Your task to perform on an android device: Set the phone to "Do not disturb". Image 0: 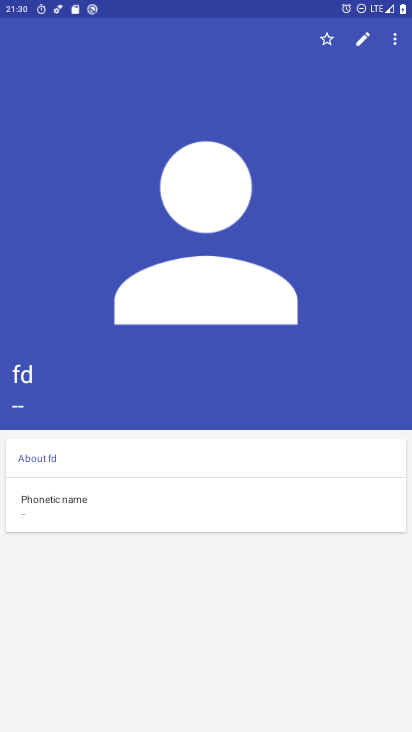
Step 0: drag from (187, 616) to (215, 59)
Your task to perform on an android device: Set the phone to "Do not disturb". Image 1: 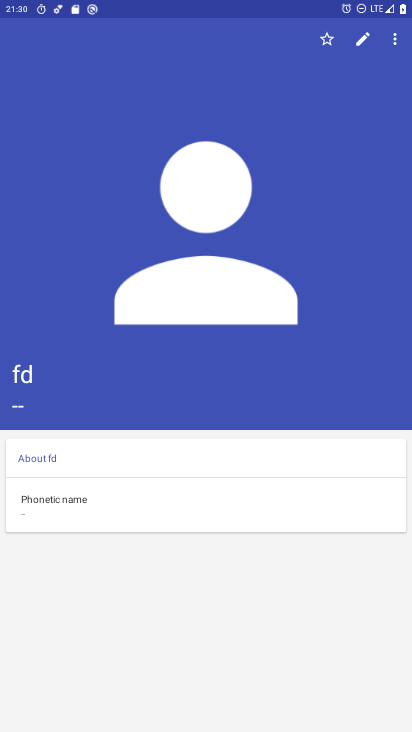
Step 1: drag from (225, 623) to (274, 278)
Your task to perform on an android device: Set the phone to "Do not disturb". Image 2: 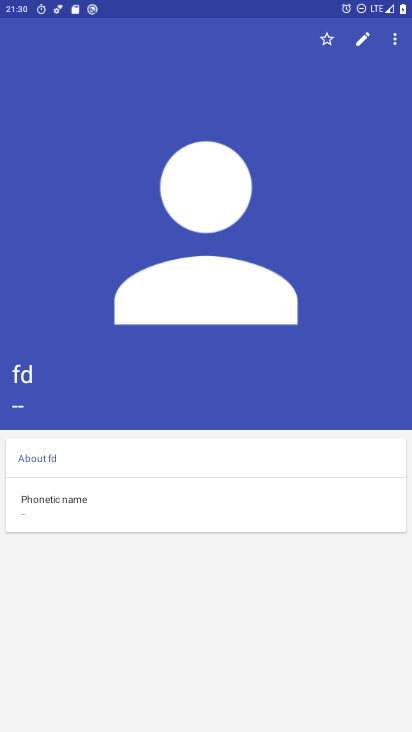
Step 2: press home button
Your task to perform on an android device: Set the phone to "Do not disturb". Image 3: 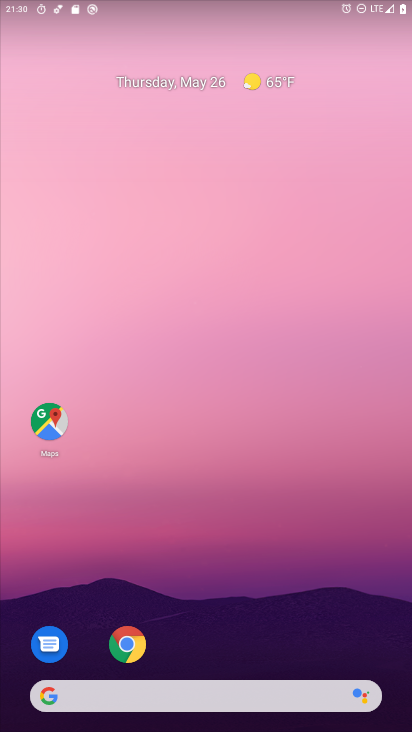
Step 3: drag from (193, 662) to (228, 293)
Your task to perform on an android device: Set the phone to "Do not disturb". Image 4: 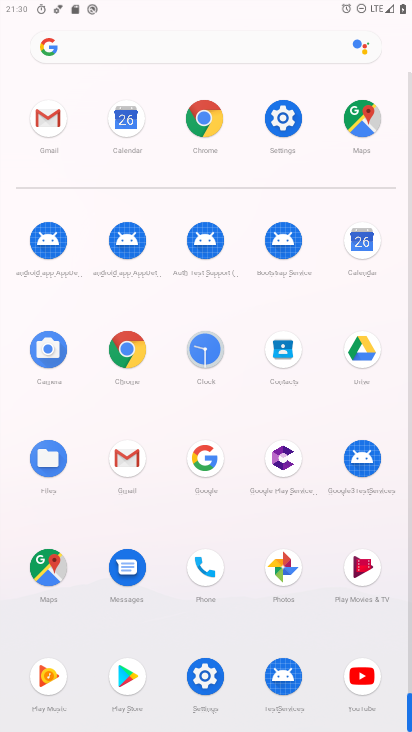
Step 4: click (277, 107)
Your task to perform on an android device: Set the phone to "Do not disturb". Image 5: 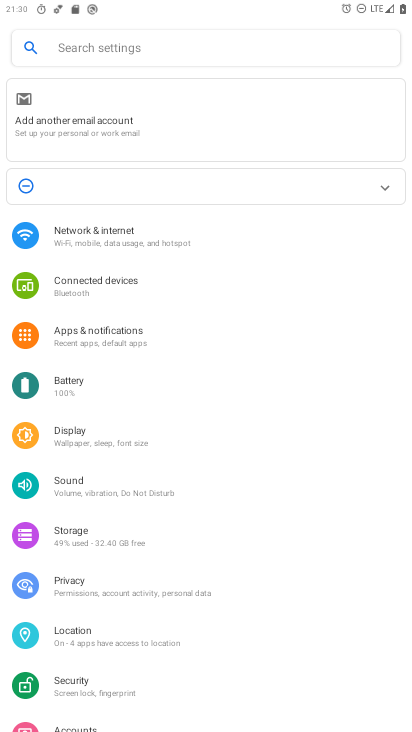
Step 5: click (128, 344)
Your task to perform on an android device: Set the phone to "Do not disturb". Image 6: 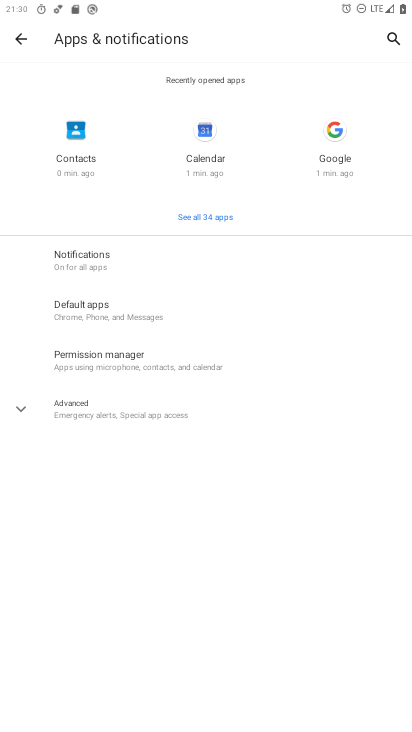
Step 6: drag from (211, 577) to (267, 272)
Your task to perform on an android device: Set the phone to "Do not disturb". Image 7: 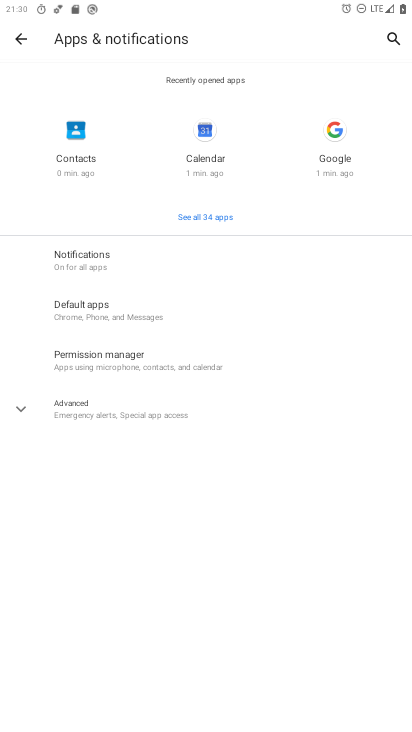
Step 7: click (144, 256)
Your task to perform on an android device: Set the phone to "Do not disturb". Image 8: 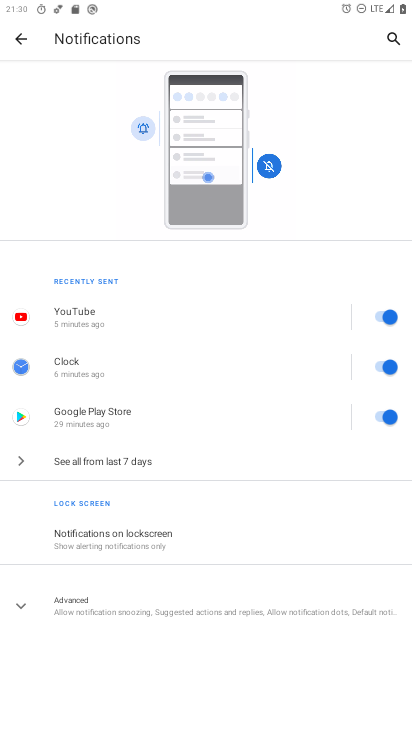
Step 8: click (114, 606)
Your task to perform on an android device: Set the phone to "Do not disturb". Image 9: 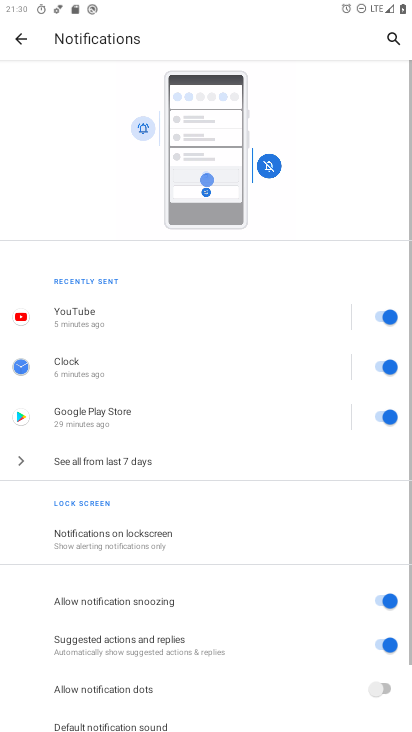
Step 9: drag from (189, 624) to (275, 73)
Your task to perform on an android device: Set the phone to "Do not disturb". Image 10: 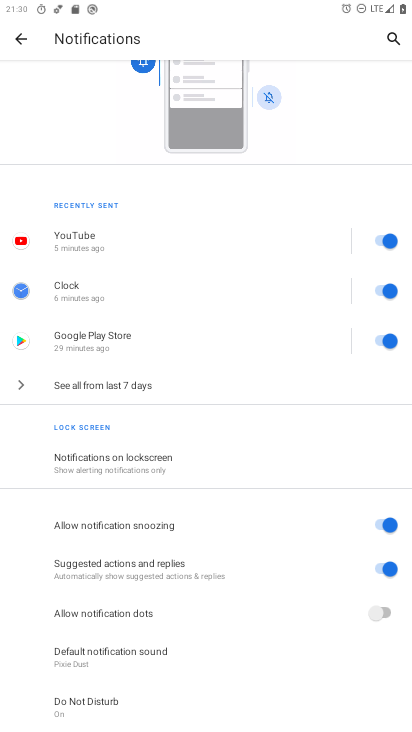
Step 10: click (103, 703)
Your task to perform on an android device: Set the phone to "Do not disturb". Image 11: 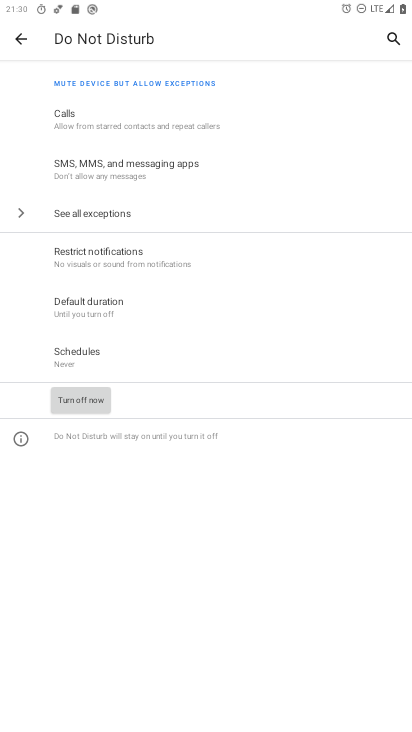
Step 11: drag from (173, 659) to (191, 210)
Your task to perform on an android device: Set the phone to "Do not disturb". Image 12: 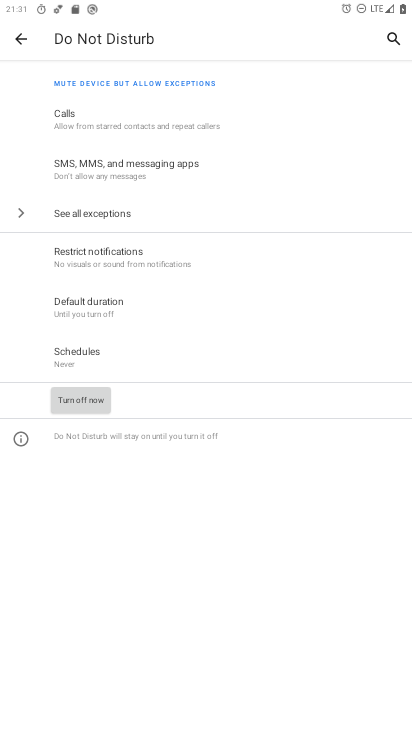
Step 12: drag from (167, 521) to (239, 304)
Your task to perform on an android device: Set the phone to "Do not disturb". Image 13: 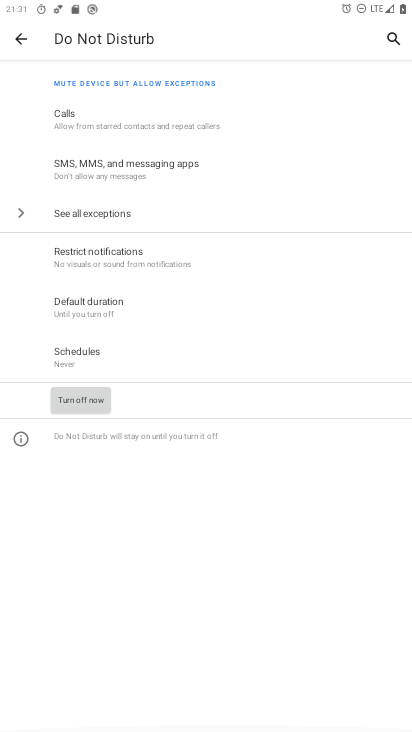
Step 13: drag from (253, 251) to (225, 633)
Your task to perform on an android device: Set the phone to "Do not disturb". Image 14: 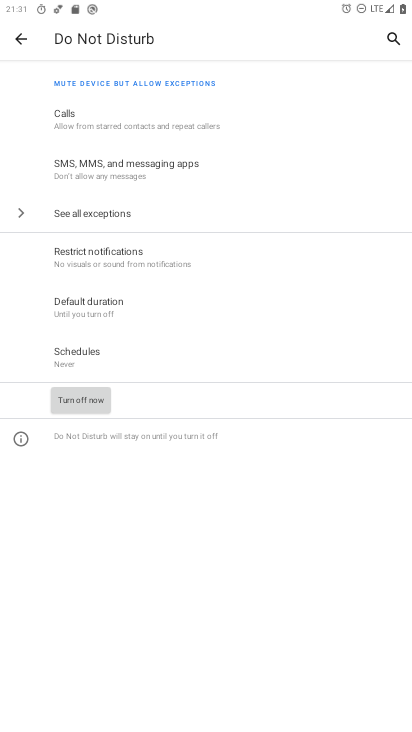
Step 14: drag from (202, 628) to (226, 344)
Your task to perform on an android device: Set the phone to "Do not disturb". Image 15: 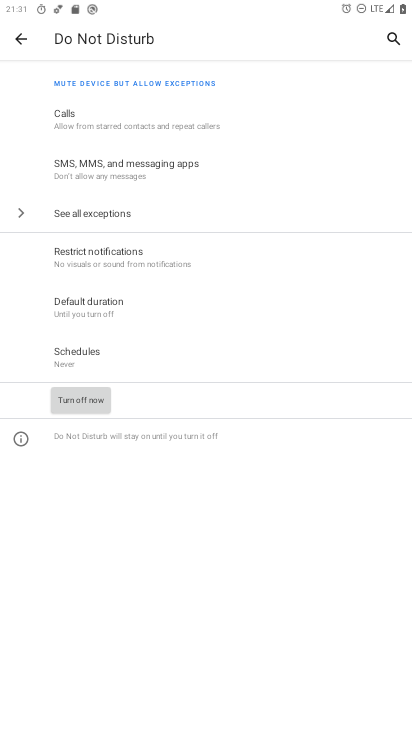
Step 15: drag from (246, 481) to (292, 137)
Your task to perform on an android device: Set the phone to "Do not disturb". Image 16: 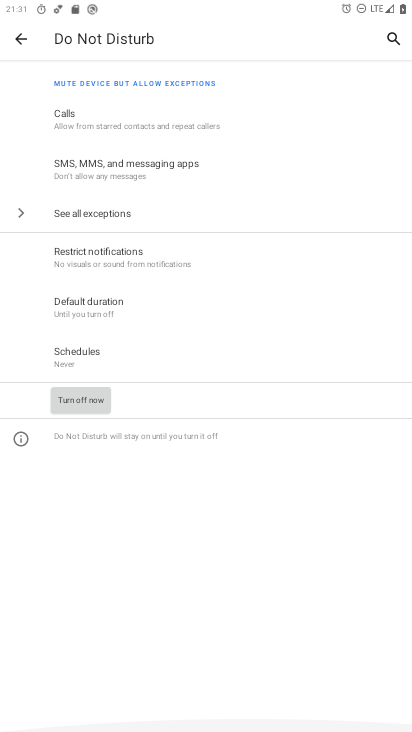
Step 16: drag from (197, 102) to (260, 509)
Your task to perform on an android device: Set the phone to "Do not disturb". Image 17: 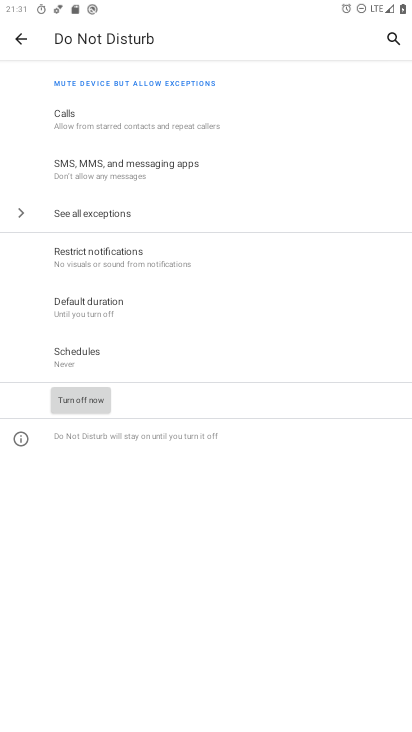
Step 17: drag from (120, 160) to (157, 487)
Your task to perform on an android device: Set the phone to "Do not disturb". Image 18: 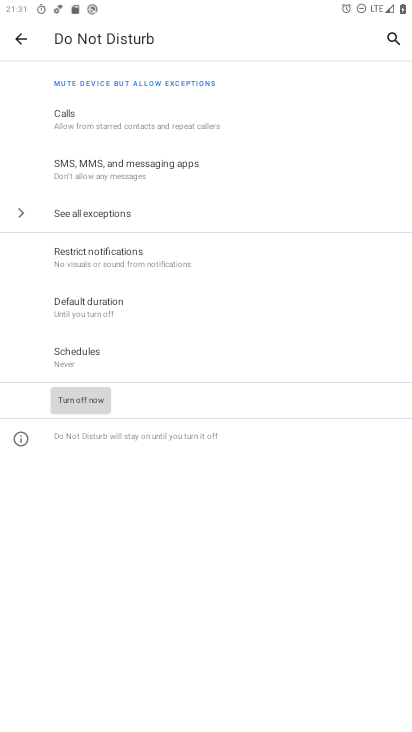
Step 18: drag from (170, 151) to (342, 556)
Your task to perform on an android device: Set the phone to "Do not disturb". Image 19: 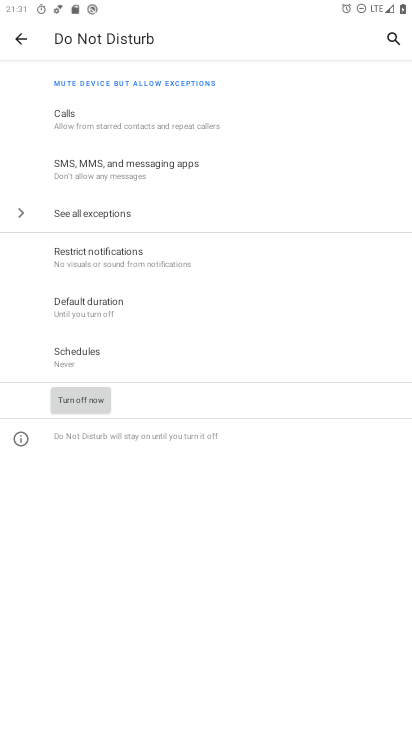
Step 19: drag from (278, 409) to (312, 48)
Your task to perform on an android device: Set the phone to "Do not disturb". Image 20: 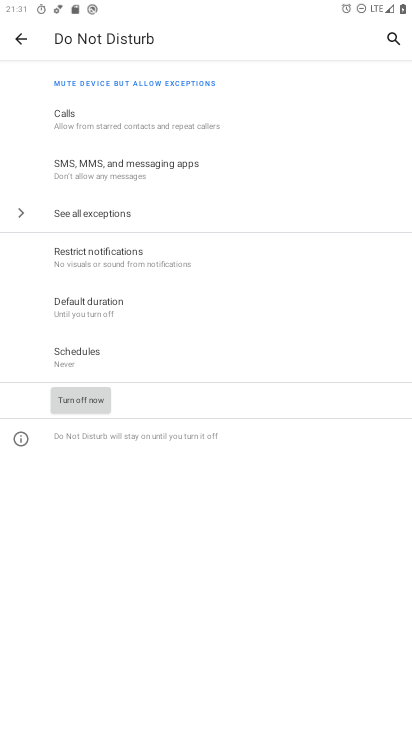
Step 20: click (72, 408)
Your task to perform on an android device: Set the phone to "Do not disturb". Image 21: 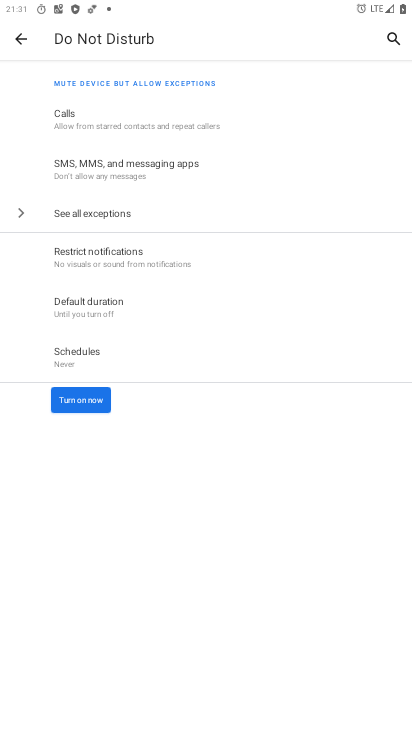
Step 21: click (83, 395)
Your task to perform on an android device: Set the phone to "Do not disturb". Image 22: 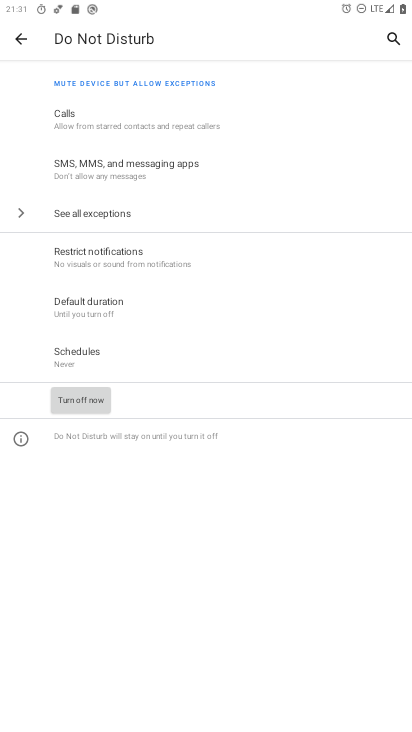
Step 22: task complete